Your task to perform on an android device: Go to Google maps Image 0: 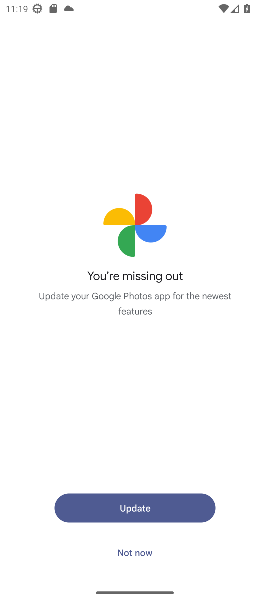
Step 0: press home button
Your task to perform on an android device: Go to Google maps Image 1: 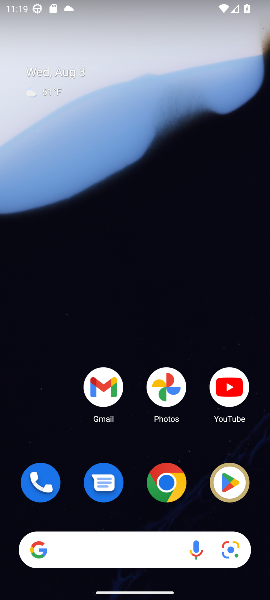
Step 1: drag from (131, 527) to (131, 120)
Your task to perform on an android device: Go to Google maps Image 2: 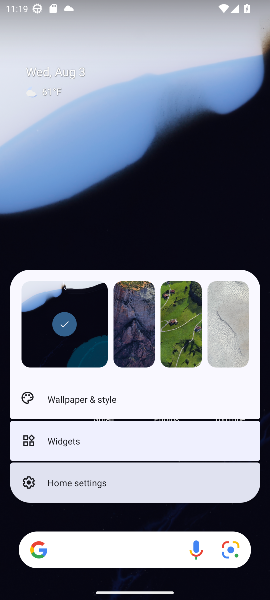
Step 2: click (131, 120)
Your task to perform on an android device: Go to Google maps Image 3: 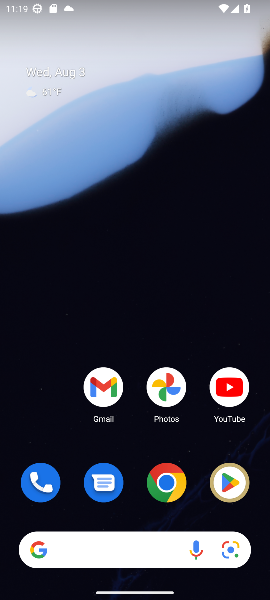
Step 3: drag from (76, 526) to (42, 89)
Your task to perform on an android device: Go to Google maps Image 4: 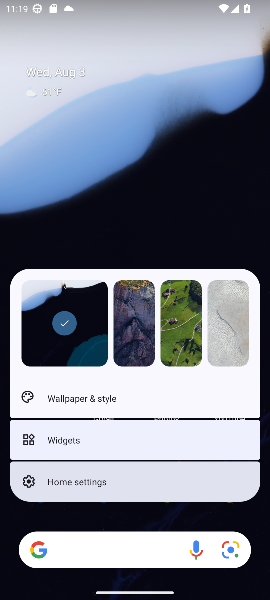
Step 4: click (42, 89)
Your task to perform on an android device: Go to Google maps Image 5: 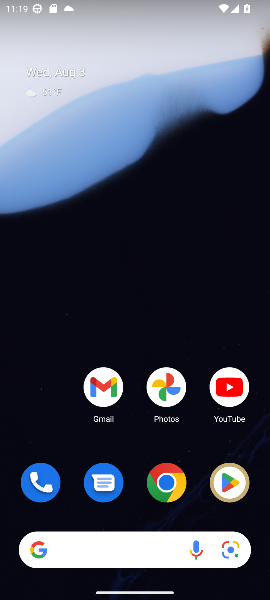
Step 5: drag from (77, 530) to (74, 187)
Your task to perform on an android device: Go to Google maps Image 6: 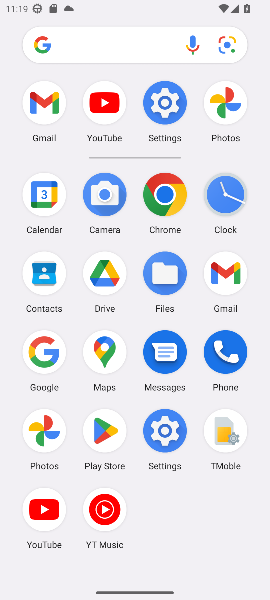
Step 6: click (105, 372)
Your task to perform on an android device: Go to Google maps Image 7: 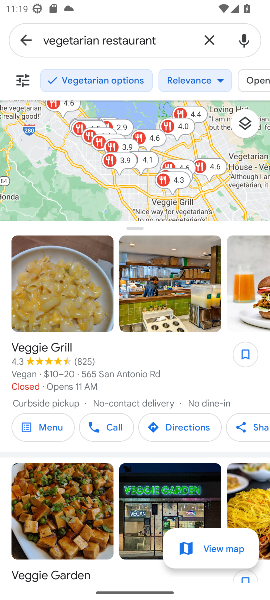
Step 7: task complete